Your task to perform on an android device: set the timer Image 0: 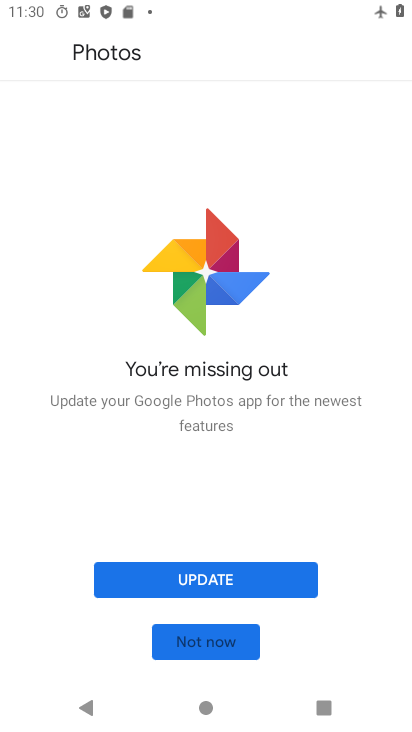
Step 0: press home button
Your task to perform on an android device: set the timer Image 1: 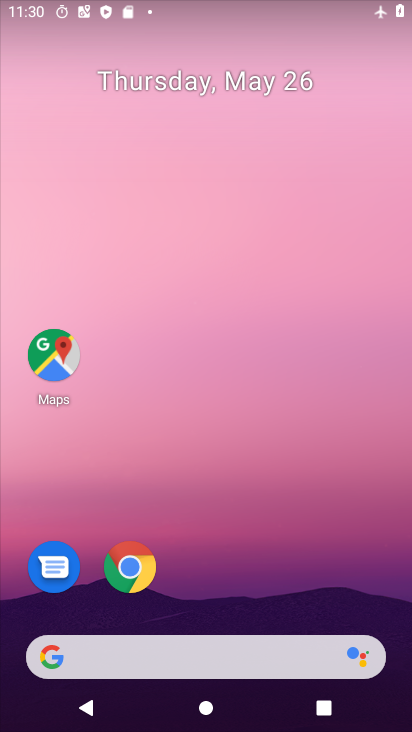
Step 1: drag from (260, 648) to (264, 57)
Your task to perform on an android device: set the timer Image 2: 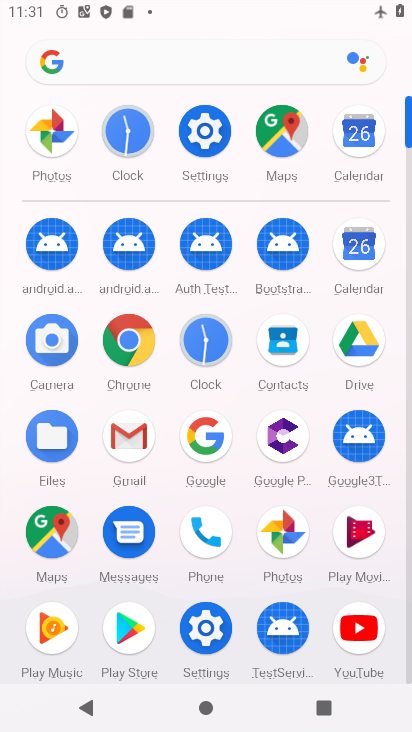
Step 2: click (142, 140)
Your task to perform on an android device: set the timer Image 3: 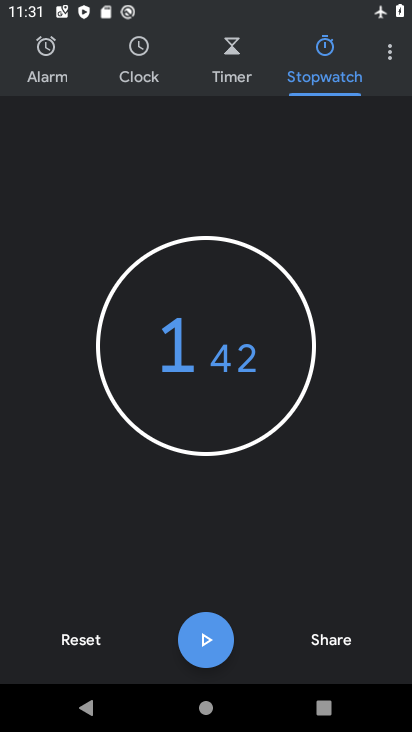
Step 3: click (226, 66)
Your task to perform on an android device: set the timer Image 4: 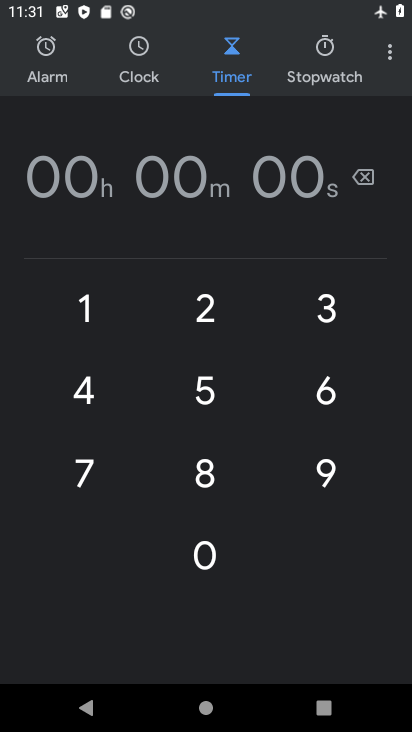
Step 4: click (216, 337)
Your task to perform on an android device: set the timer Image 5: 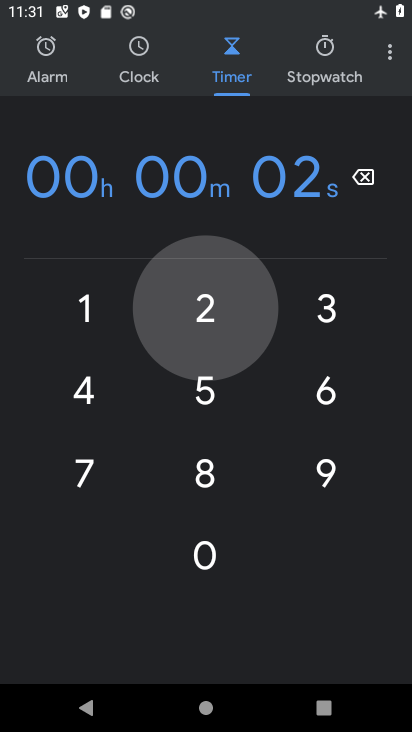
Step 5: click (212, 390)
Your task to perform on an android device: set the timer Image 6: 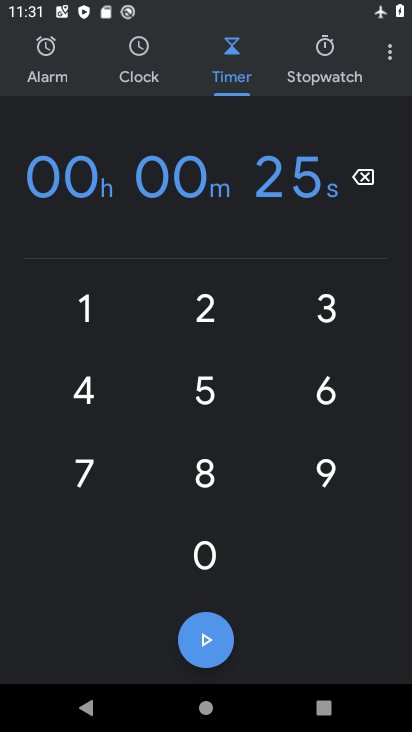
Step 6: click (332, 397)
Your task to perform on an android device: set the timer Image 7: 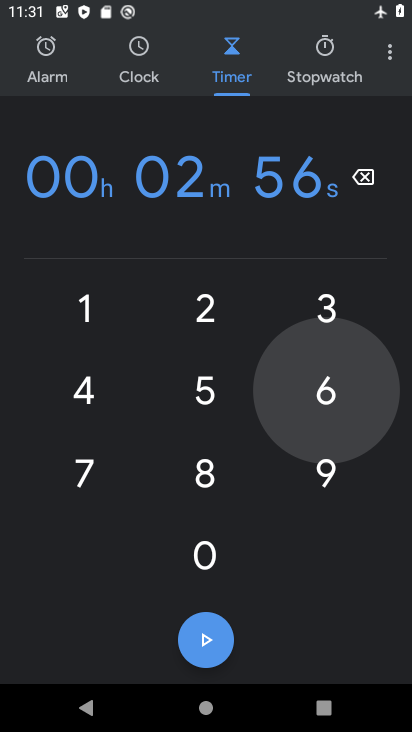
Step 7: click (326, 316)
Your task to perform on an android device: set the timer Image 8: 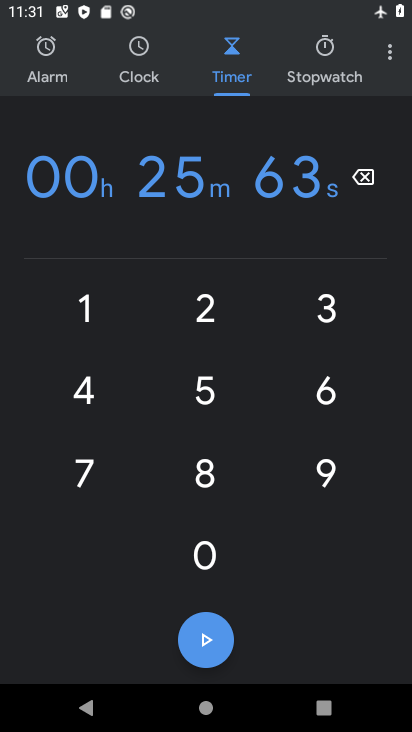
Step 8: task complete